Your task to perform on an android device: Open calendar and show me the third week of next month Image 0: 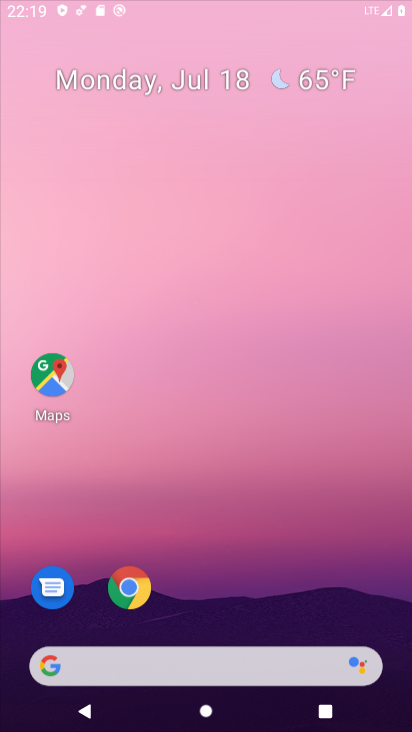
Step 0: press home button
Your task to perform on an android device: Open calendar and show me the third week of next month Image 1: 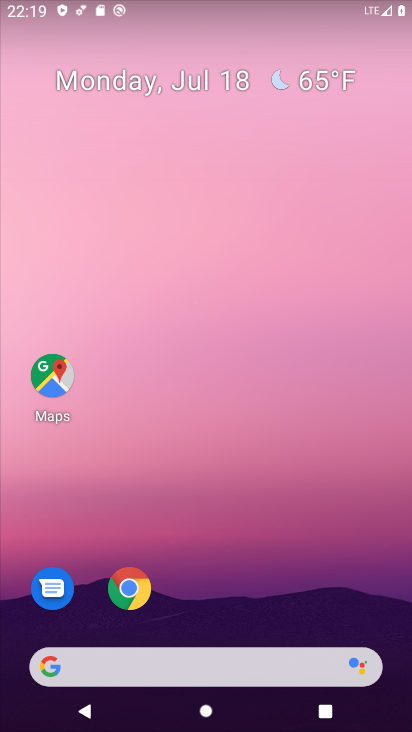
Step 1: drag from (294, 581) to (312, 34)
Your task to perform on an android device: Open calendar and show me the third week of next month Image 2: 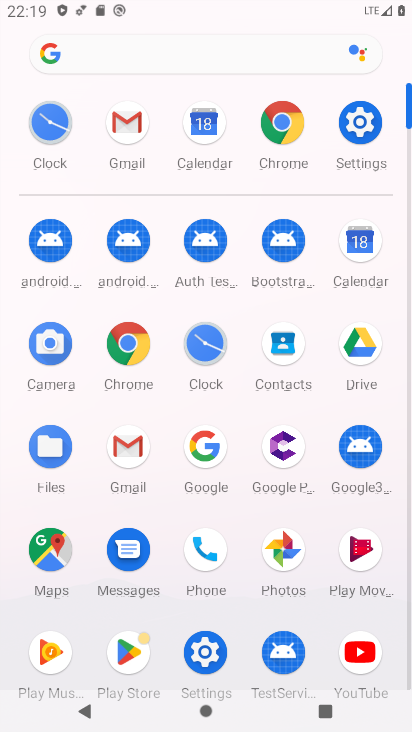
Step 2: click (355, 234)
Your task to perform on an android device: Open calendar and show me the third week of next month Image 3: 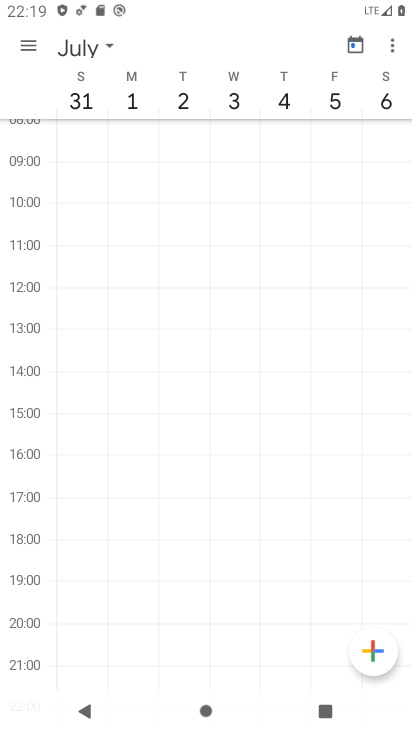
Step 3: task complete